Your task to perform on an android device: install app "Speedtest by Ookla" Image 0: 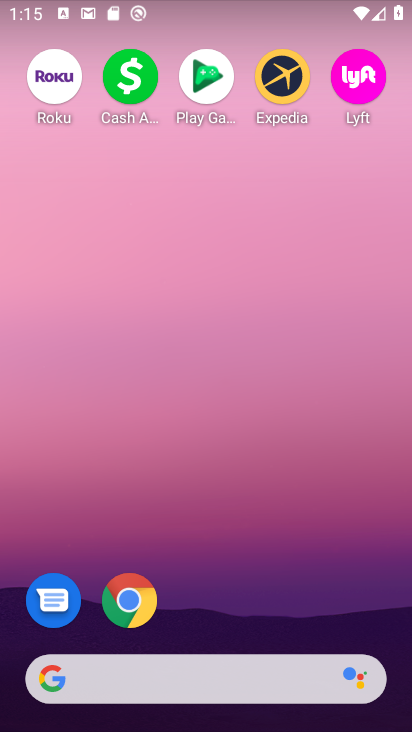
Step 0: drag from (290, 631) to (294, 48)
Your task to perform on an android device: install app "Speedtest by Ookla" Image 1: 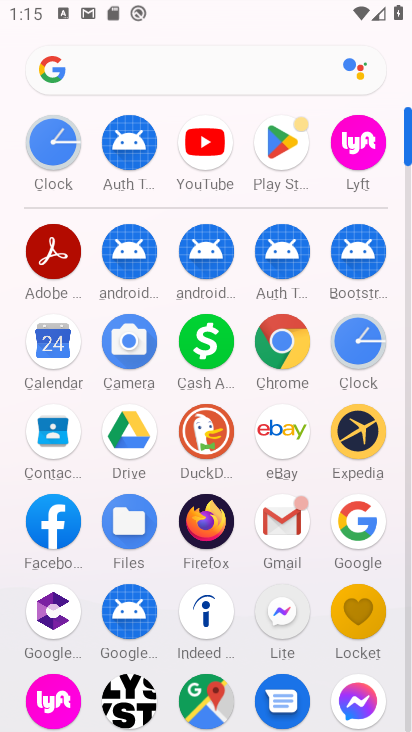
Step 1: click (282, 171)
Your task to perform on an android device: install app "Speedtest by Ookla" Image 2: 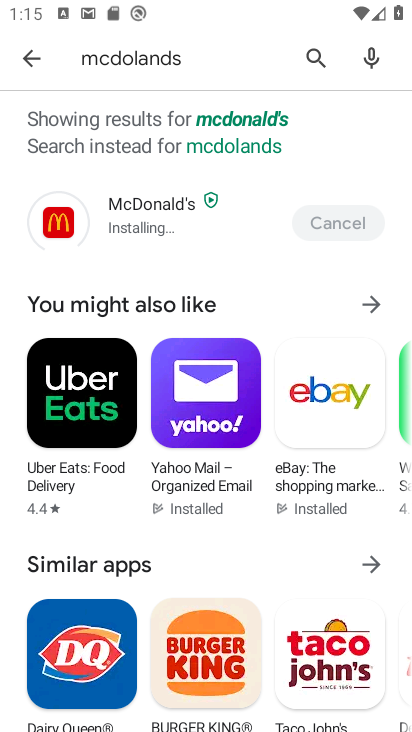
Step 2: task complete